Your task to perform on an android device: Open the phone app and click the voicemail tab. Image 0: 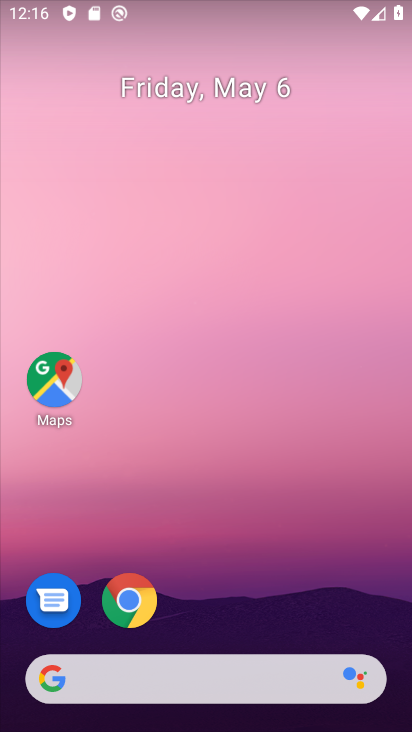
Step 0: drag from (187, 655) to (285, 60)
Your task to perform on an android device: Open the phone app and click the voicemail tab. Image 1: 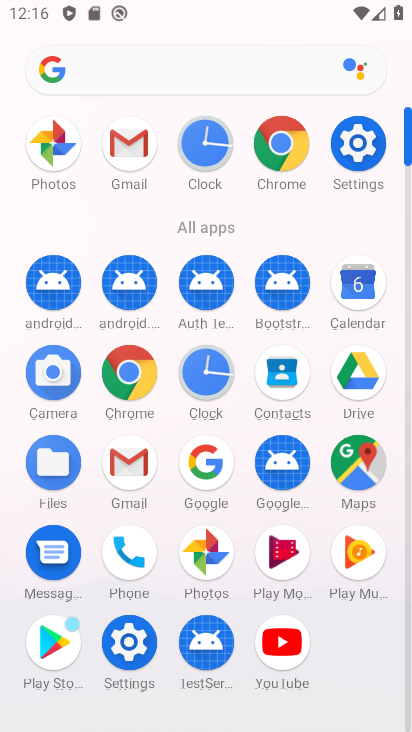
Step 1: click (128, 562)
Your task to perform on an android device: Open the phone app and click the voicemail tab. Image 2: 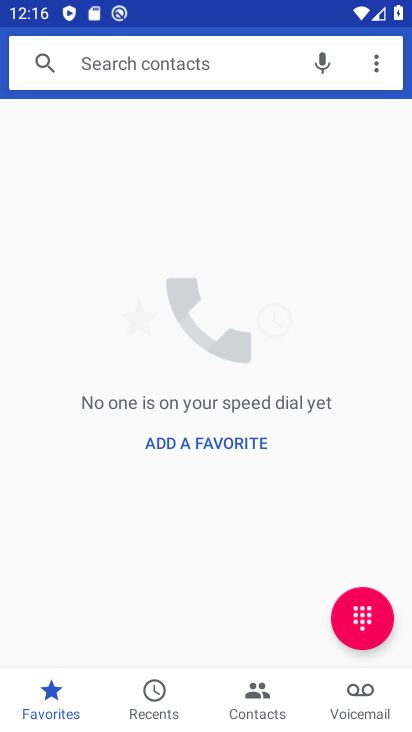
Step 2: click (356, 697)
Your task to perform on an android device: Open the phone app and click the voicemail tab. Image 3: 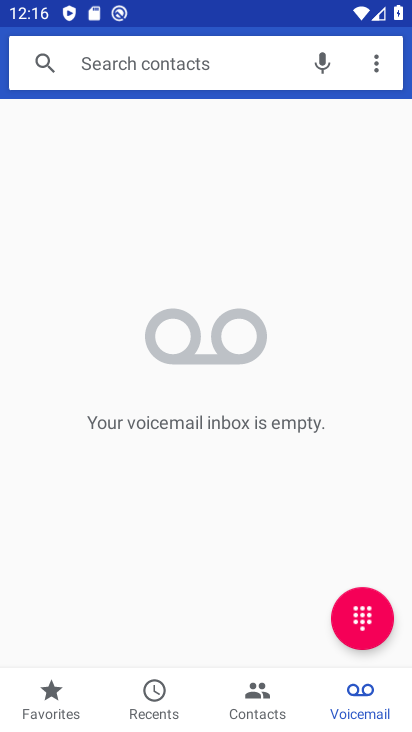
Step 3: task complete